Your task to perform on an android device: open the mobile data screen to see how much data has been used Image 0: 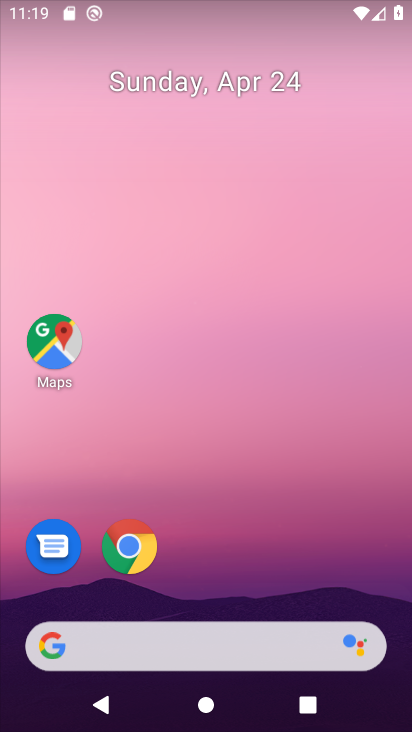
Step 0: drag from (196, 360) to (262, 6)
Your task to perform on an android device: open the mobile data screen to see how much data has been used Image 1: 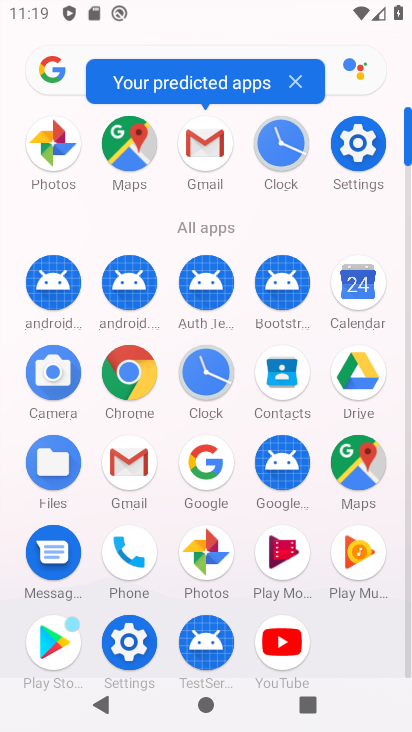
Step 1: click (133, 624)
Your task to perform on an android device: open the mobile data screen to see how much data has been used Image 2: 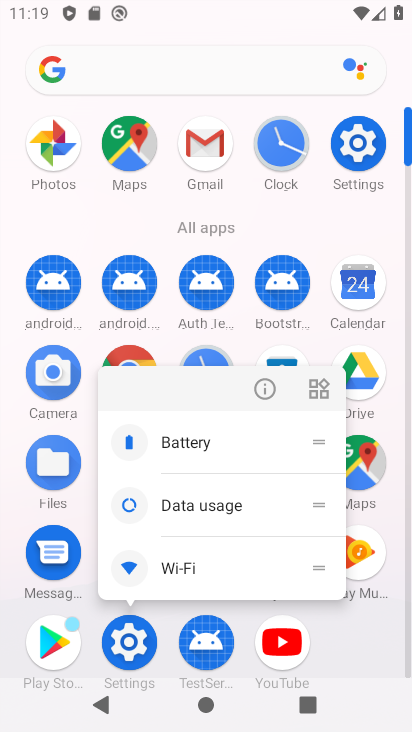
Step 2: click (119, 629)
Your task to perform on an android device: open the mobile data screen to see how much data has been used Image 3: 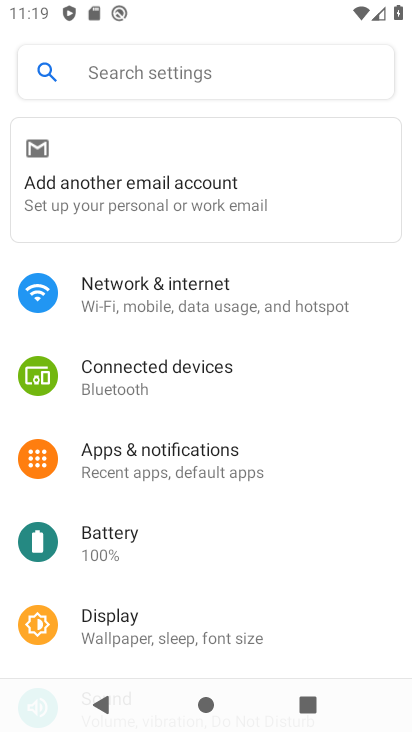
Step 3: click (158, 318)
Your task to perform on an android device: open the mobile data screen to see how much data has been used Image 4: 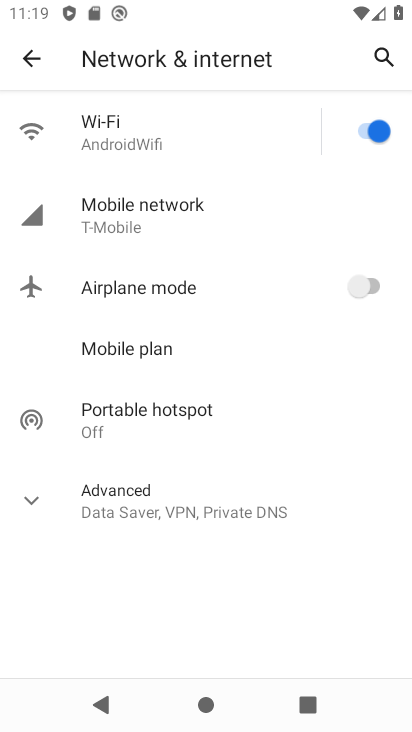
Step 4: click (142, 239)
Your task to perform on an android device: open the mobile data screen to see how much data has been used Image 5: 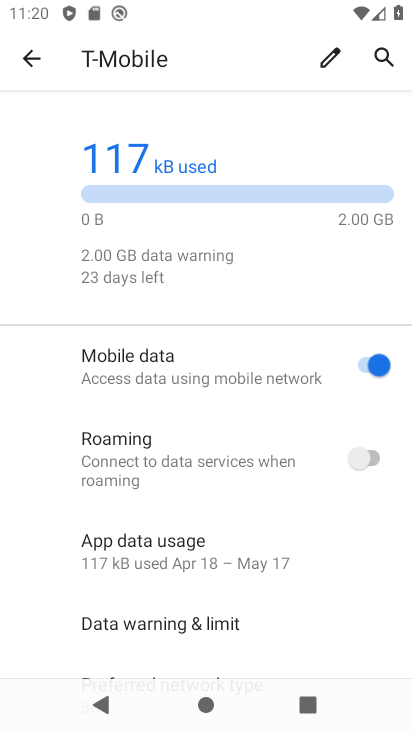
Step 5: click (144, 555)
Your task to perform on an android device: open the mobile data screen to see how much data has been used Image 6: 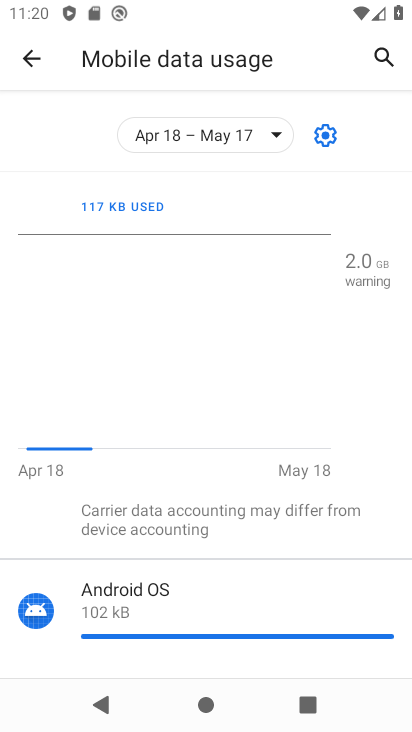
Step 6: task complete